Your task to perform on an android device: turn on location history Image 0: 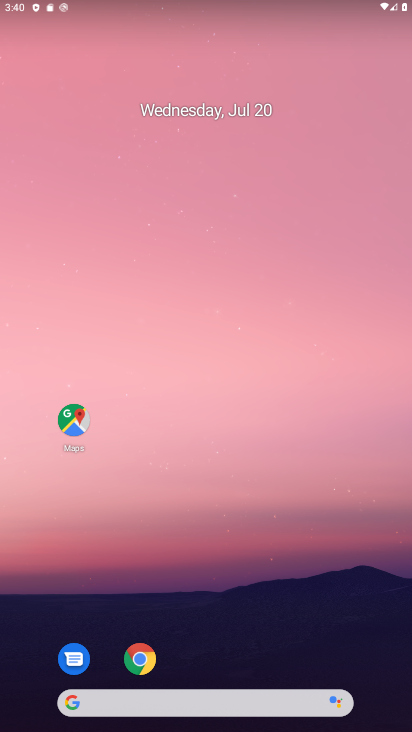
Step 0: drag from (207, 645) to (239, 123)
Your task to perform on an android device: turn on location history Image 1: 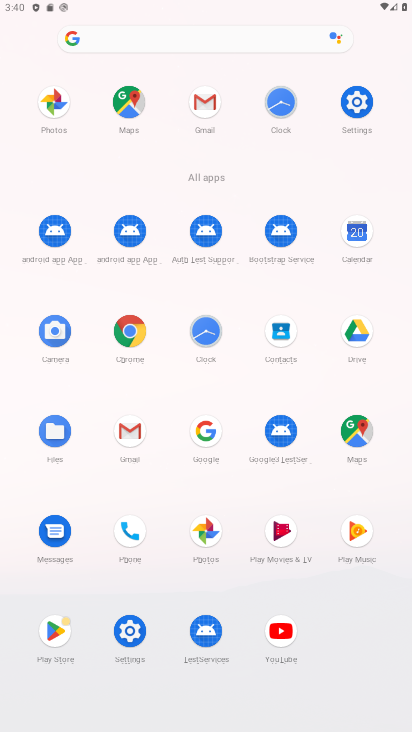
Step 1: click (124, 626)
Your task to perform on an android device: turn on location history Image 2: 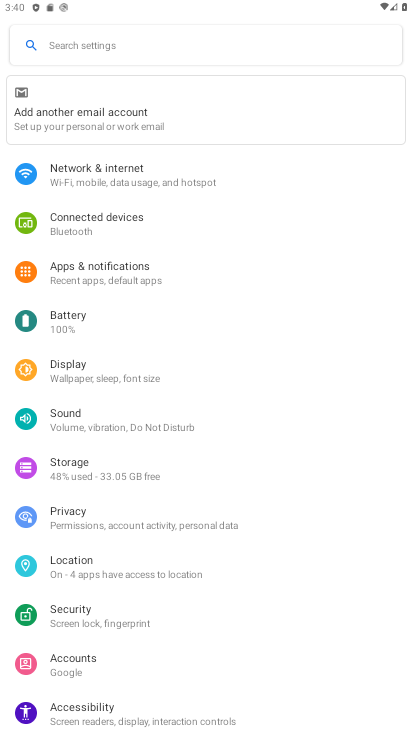
Step 2: click (93, 568)
Your task to perform on an android device: turn on location history Image 3: 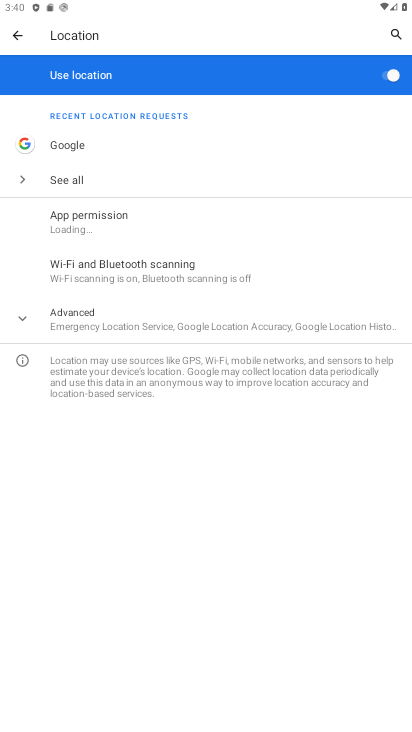
Step 3: click (133, 314)
Your task to perform on an android device: turn on location history Image 4: 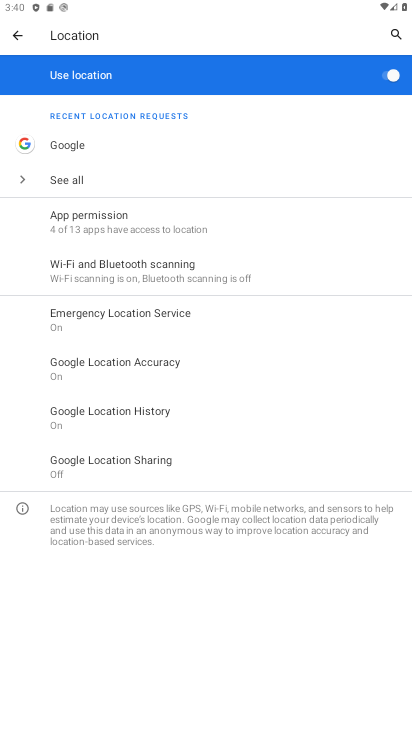
Step 4: click (167, 418)
Your task to perform on an android device: turn on location history Image 5: 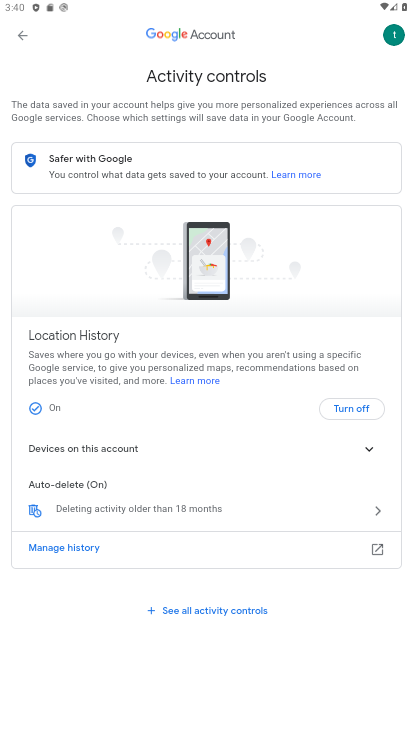
Step 5: task complete